Your task to perform on an android device: toggle pop-ups in chrome Image 0: 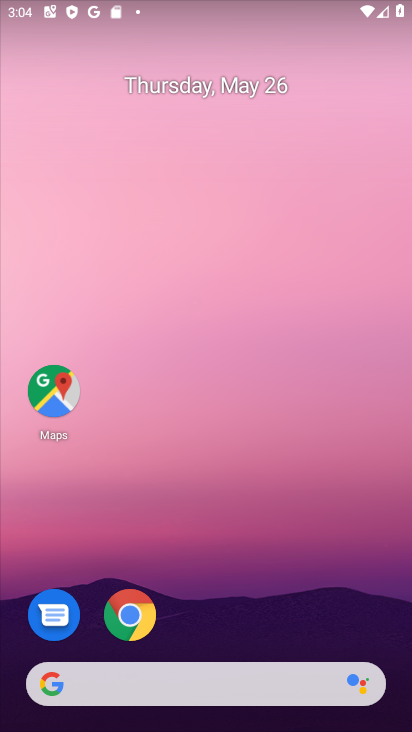
Step 0: click (129, 622)
Your task to perform on an android device: toggle pop-ups in chrome Image 1: 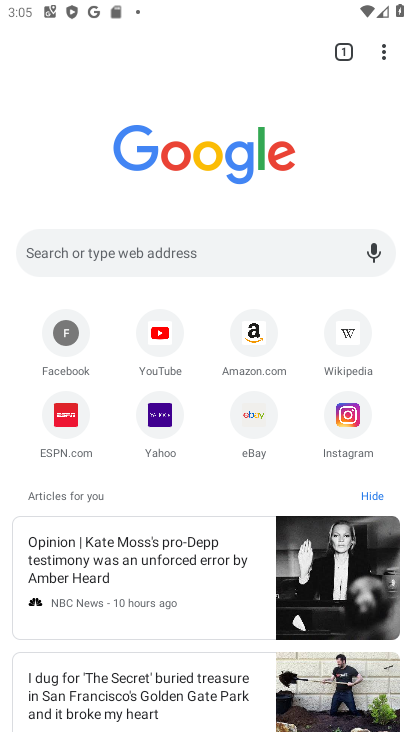
Step 1: click (385, 45)
Your task to perform on an android device: toggle pop-ups in chrome Image 2: 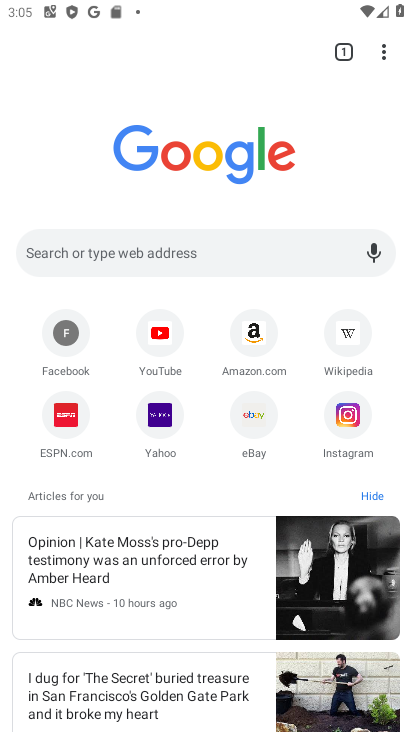
Step 2: click (385, 47)
Your task to perform on an android device: toggle pop-ups in chrome Image 3: 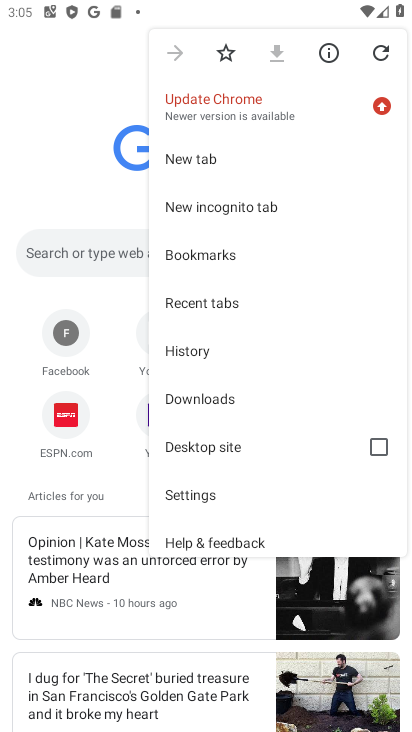
Step 3: click (230, 492)
Your task to perform on an android device: toggle pop-ups in chrome Image 4: 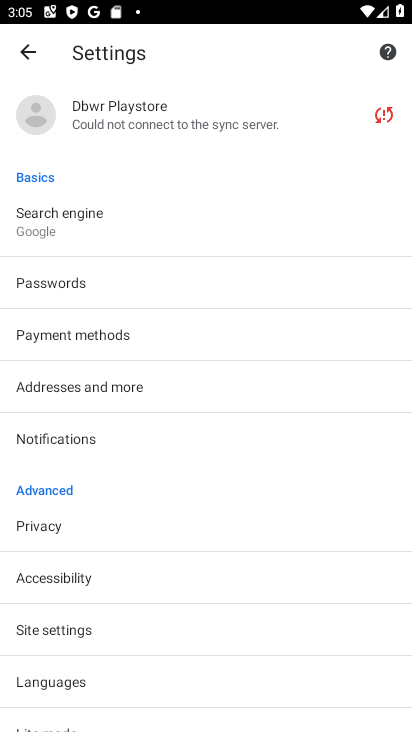
Step 4: click (66, 634)
Your task to perform on an android device: toggle pop-ups in chrome Image 5: 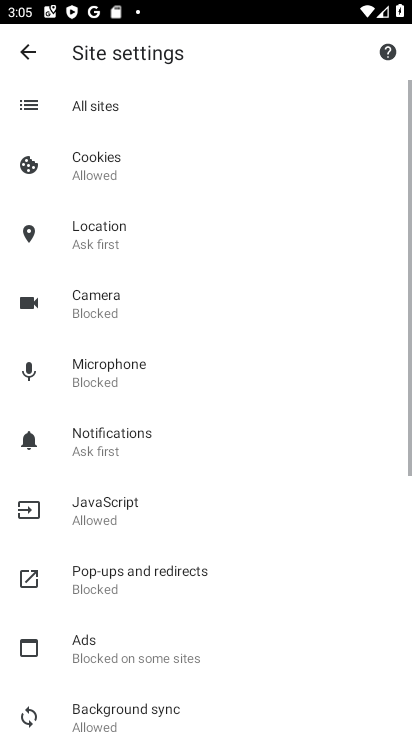
Step 5: click (104, 586)
Your task to perform on an android device: toggle pop-ups in chrome Image 6: 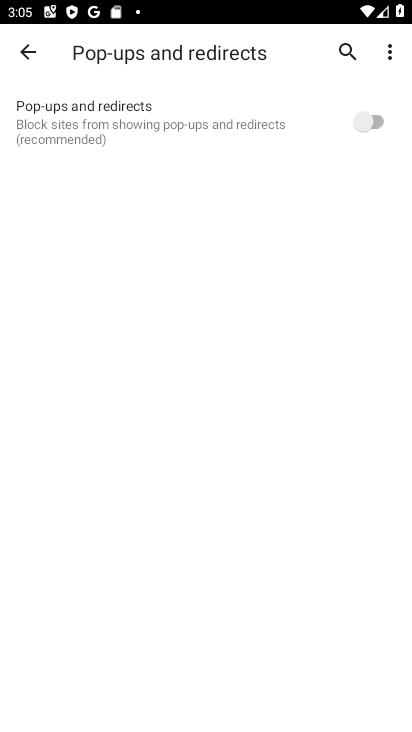
Step 6: click (391, 124)
Your task to perform on an android device: toggle pop-ups in chrome Image 7: 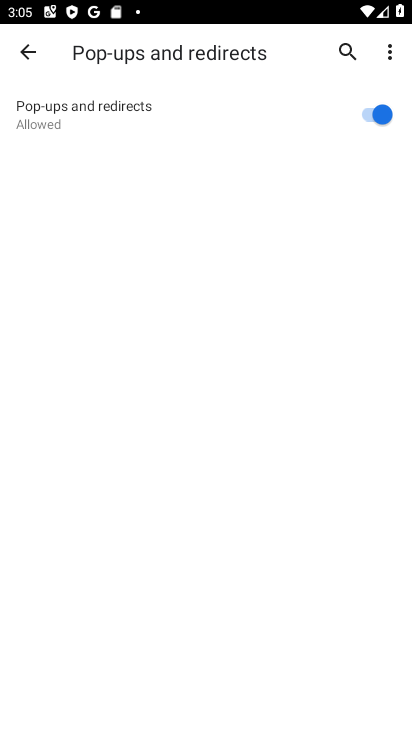
Step 7: task complete